Your task to perform on an android device: Open Google Chrome and open the bookmarks view Image 0: 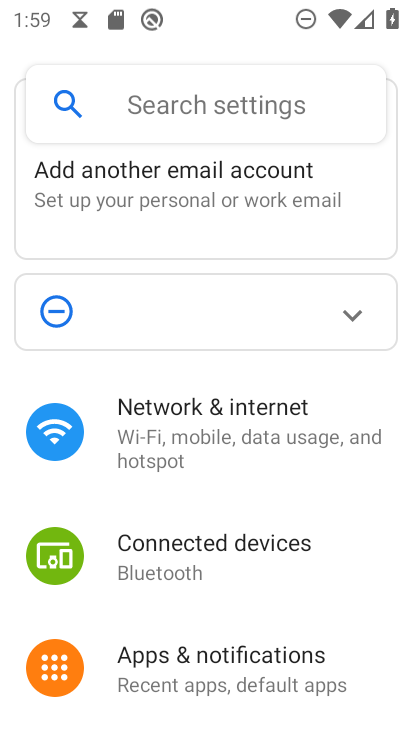
Step 0: press home button
Your task to perform on an android device: Open Google Chrome and open the bookmarks view Image 1: 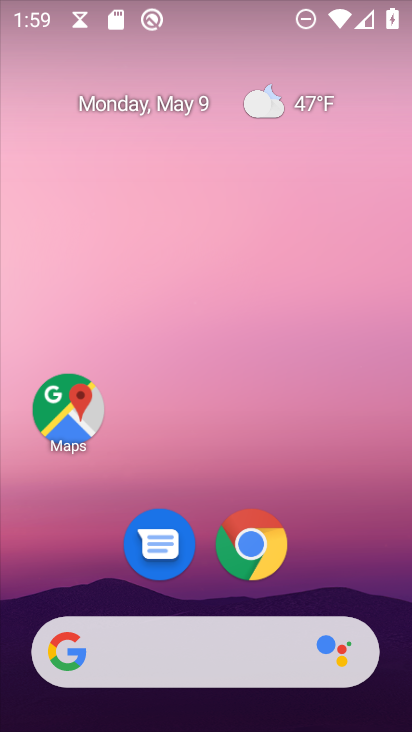
Step 1: drag from (352, 523) to (390, 191)
Your task to perform on an android device: Open Google Chrome and open the bookmarks view Image 2: 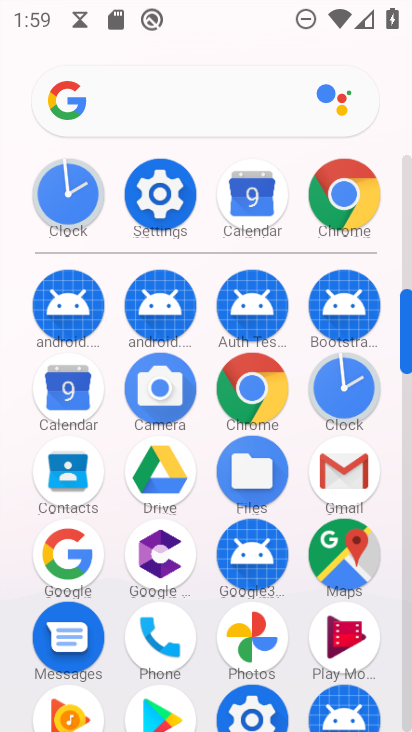
Step 2: click (356, 208)
Your task to perform on an android device: Open Google Chrome and open the bookmarks view Image 3: 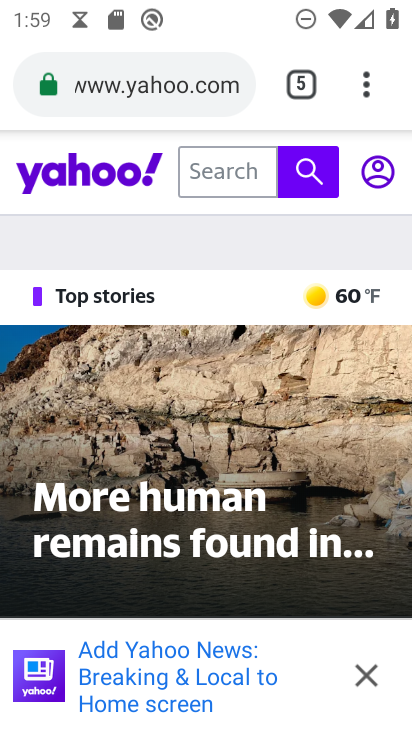
Step 3: task complete